Your task to perform on an android device: turn off smart reply in the gmail app Image 0: 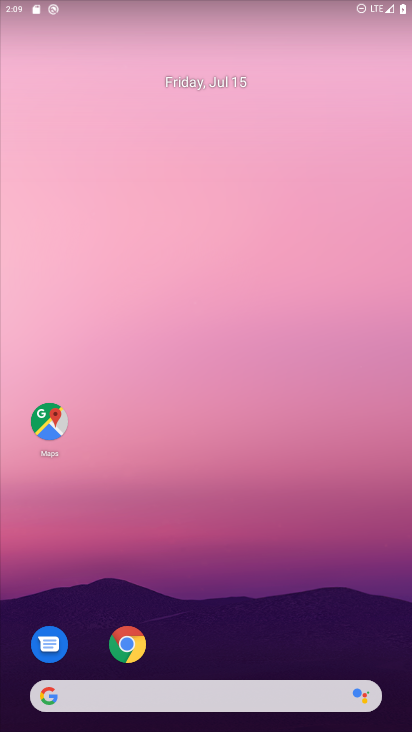
Step 0: drag from (16, 591) to (314, 34)
Your task to perform on an android device: turn off smart reply in the gmail app Image 1: 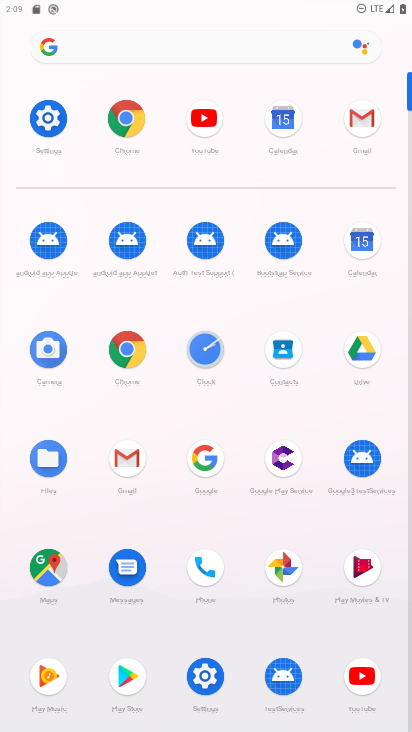
Step 1: click (365, 128)
Your task to perform on an android device: turn off smart reply in the gmail app Image 2: 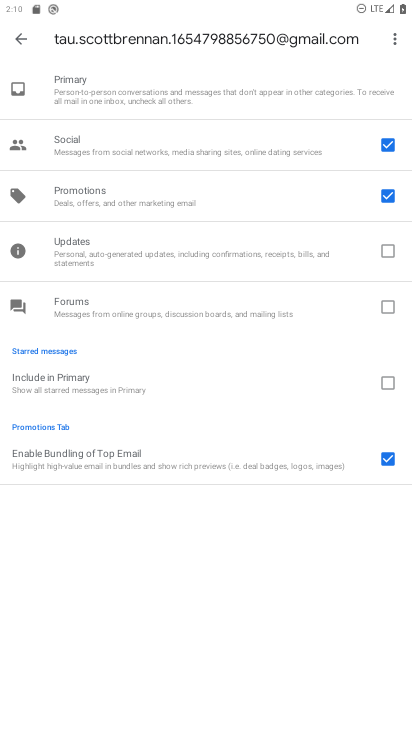
Step 2: task complete